Your task to perform on an android device: Go to CNN.com Image 0: 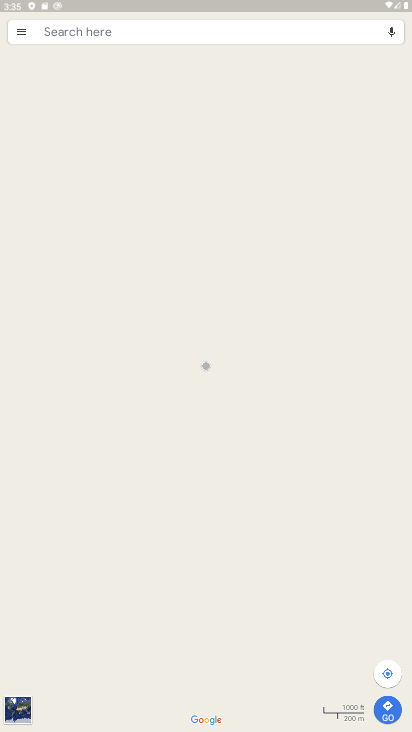
Step 0: press home button
Your task to perform on an android device: Go to CNN.com Image 1: 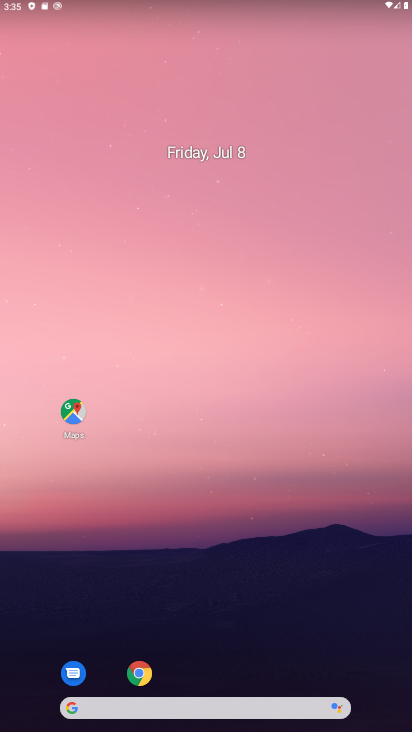
Step 1: click (140, 681)
Your task to perform on an android device: Go to CNN.com Image 2: 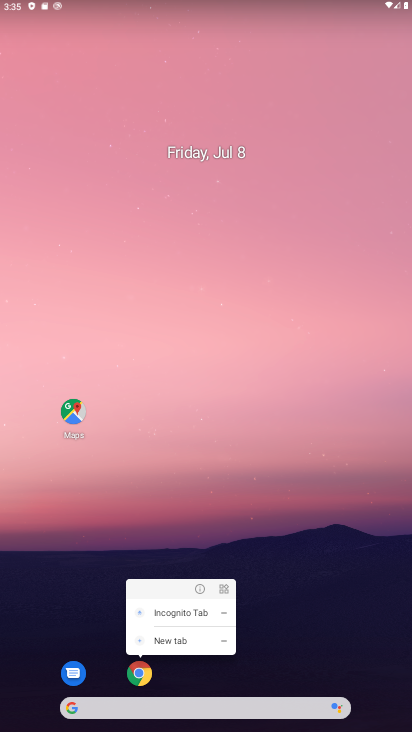
Step 2: click (140, 673)
Your task to perform on an android device: Go to CNN.com Image 3: 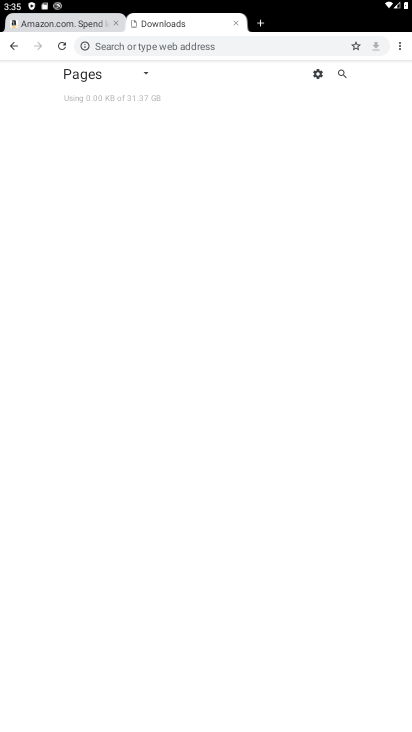
Step 3: click (237, 20)
Your task to perform on an android device: Go to CNN.com Image 4: 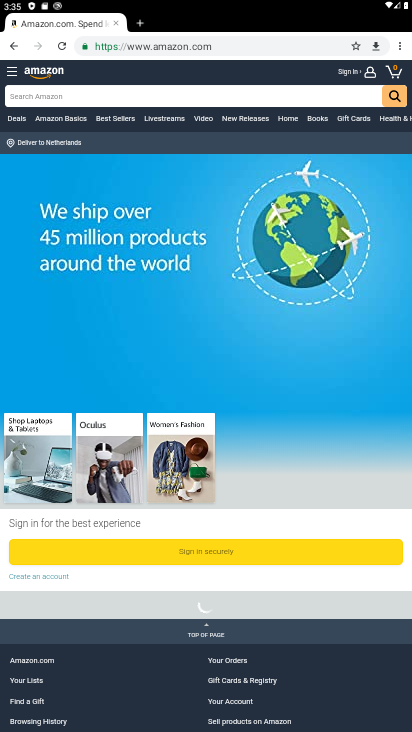
Step 4: click (14, 47)
Your task to perform on an android device: Go to CNN.com Image 5: 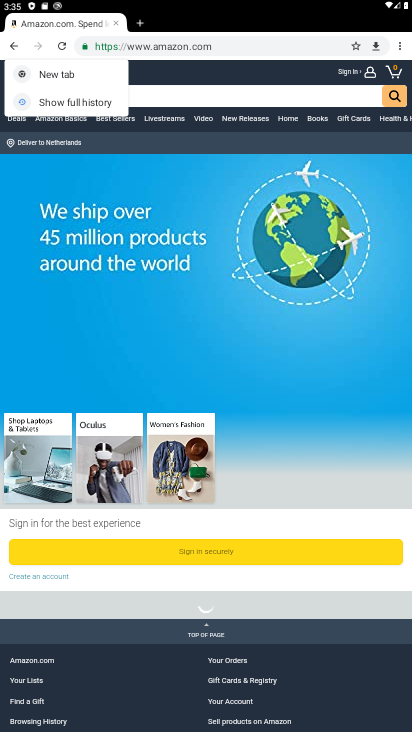
Step 5: click (11, 45)
Your task to perform on an android device: Go to CNN.com Image 6: 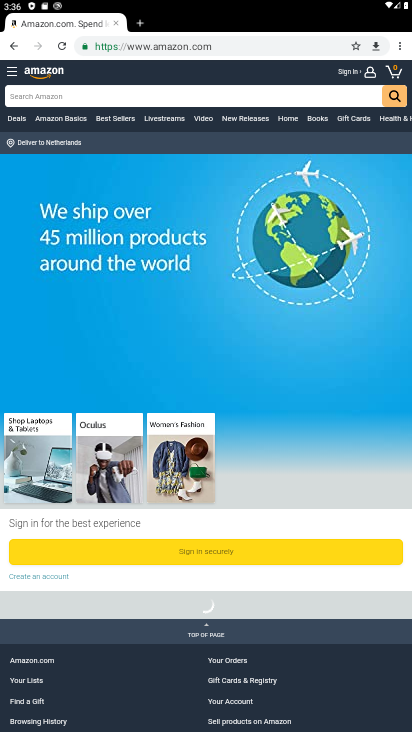
Step 6: click (13, 46)
Your task to perform on an android device: Go to CNN.com Image 7: 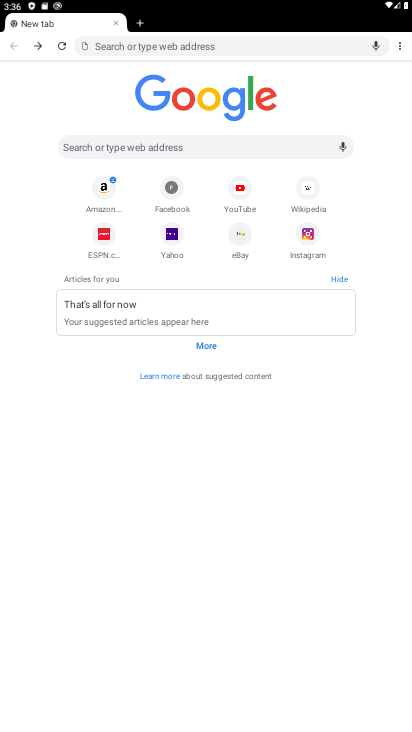
Step 7: click (105, 50)
Your task to perform on an android device: Go to CNN.com Image 8: 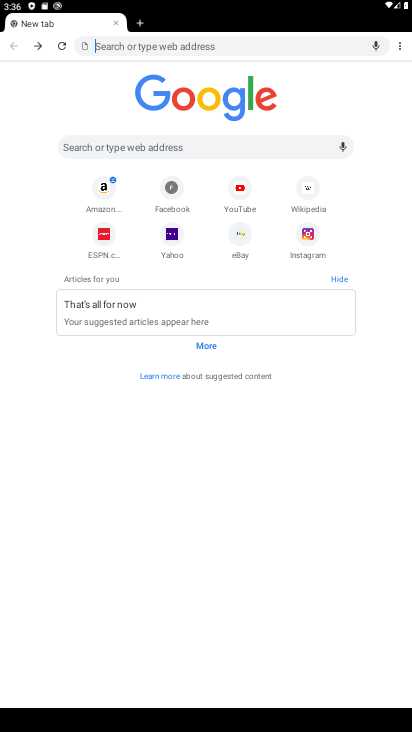
Step 8: type "cnn.com"
Your task to perform on an android device: Go to CNN.com Image 9: 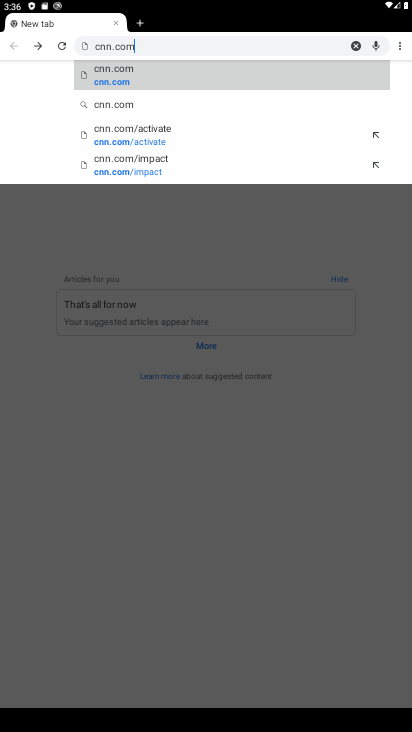
Step 9: click (107, 83)
Your task to perform on an android device: Go to CNN.com Image 10: 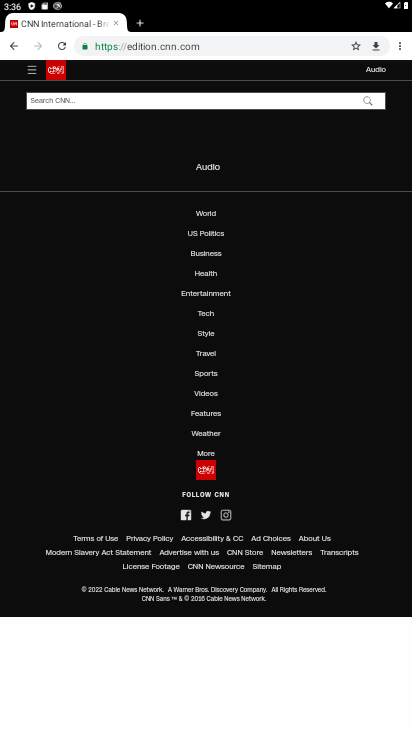
Step 10: task complete